Your task to perform on an android device: choose inbox layout in the gmail app Image 0: 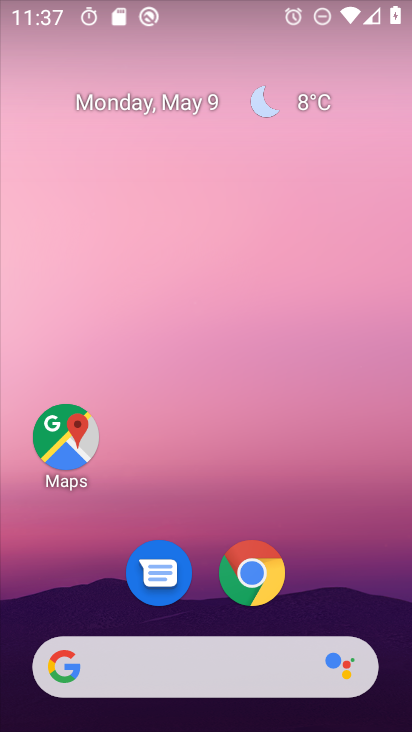
Step 0: drag from (350, 555) to (304, 125)
Your task to perform on an android device: choose inbox layout in the gmail app Image 1: 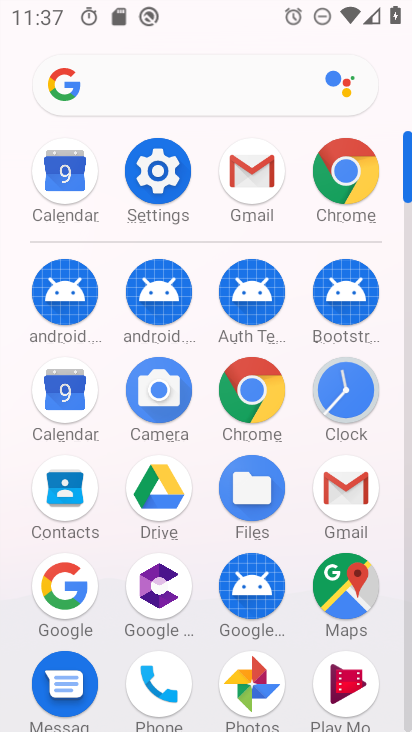
Step 1: click (356, 484)
Your task to perform on an android device: choose inbox layout in the gmail app Image 2: 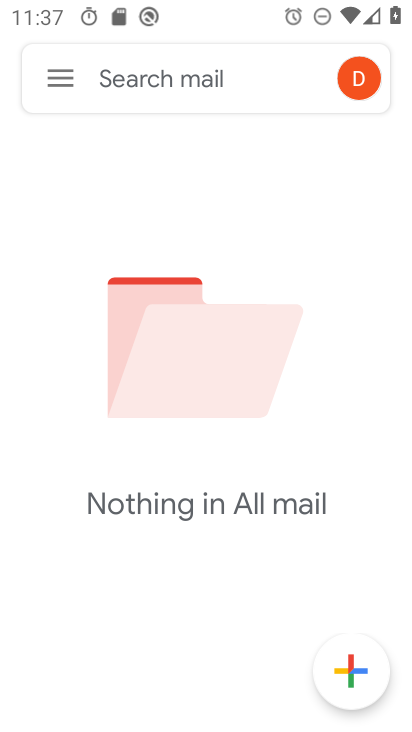
Step 2: click (43, 74)
Your task to perform on an android device: choose inbox layout in the gmail app Image 3: 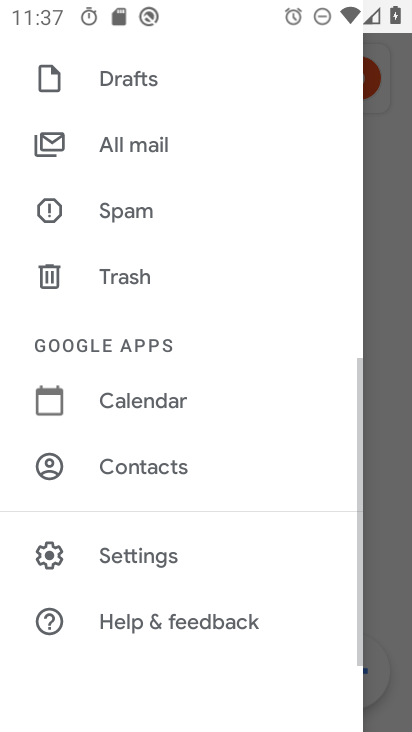
Step 3: click (164, 543)
Your task to perform on an android device: choose inbox layout in the gmail app Image 4: 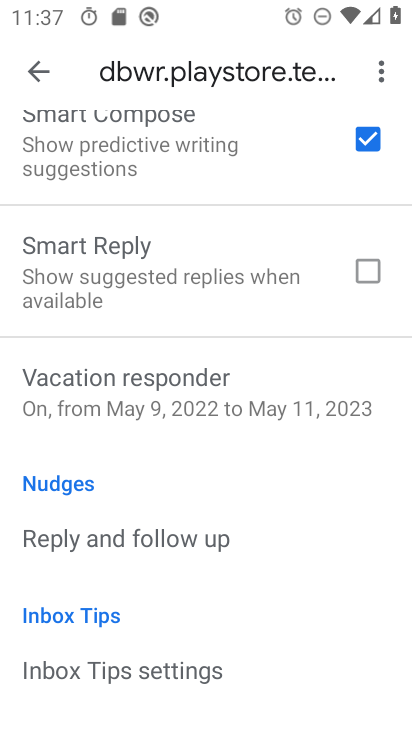
Step 4: drag from (174, 219) to (318, 717)
Your task to perform on an android device: choose inbox layout in the gmail app Image 5: 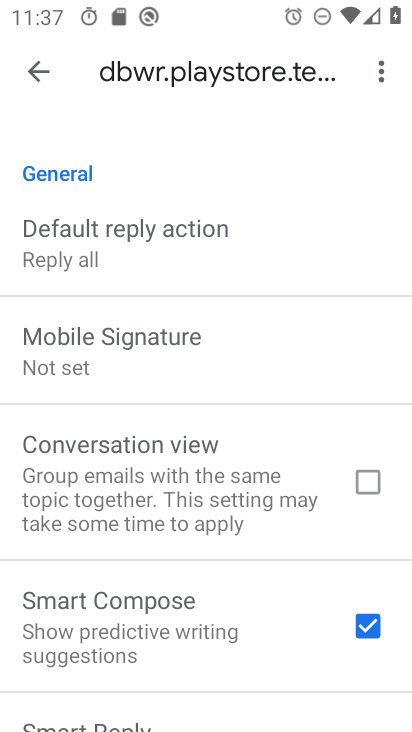
Step 5: drag from (239, 292) to (298, 731)
Your task to perform on an android device: choose inbox layout in the gmail app Image 6: 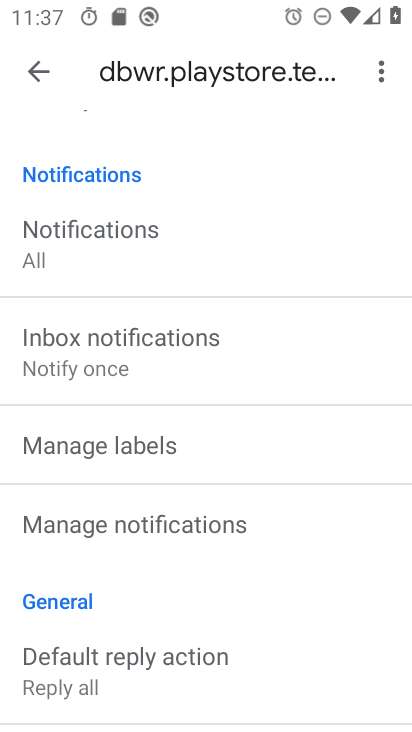
Step 6: drag from (221, 299) to (263, 721)
Your task to perform on an android device: choose inbox layout in the gmail app Image 7: 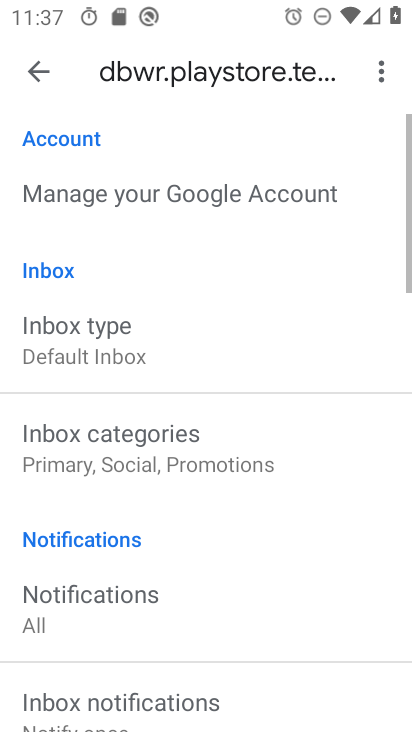
Step 7: drag from (214, 381) to (254, 730)
Your task to perform on an android device: choose inbox layout in the gmail app Image 8: 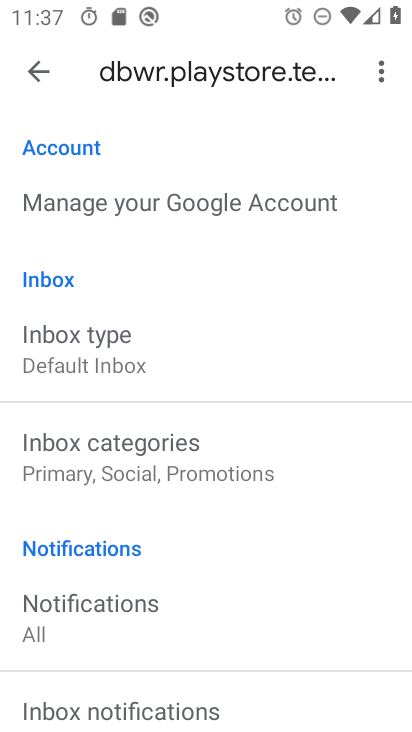
Step 8: click (88, 363)
Your task to perform on an android device: choose inbox layout in the gmail app Image 9: 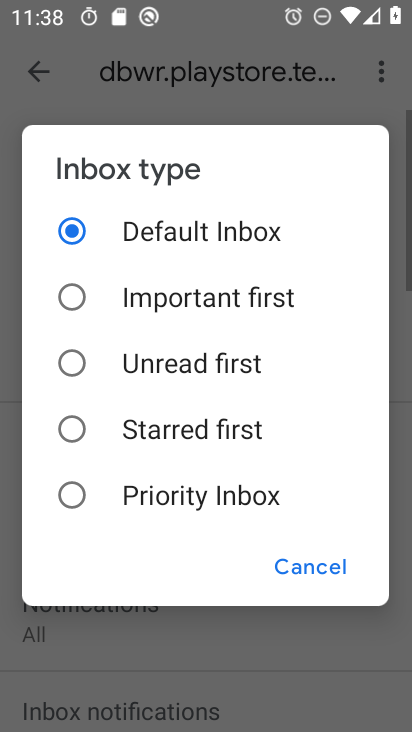
Step 9: task complete